Your task to perform on an android device: Is it going to rain this weekend? Image 0: 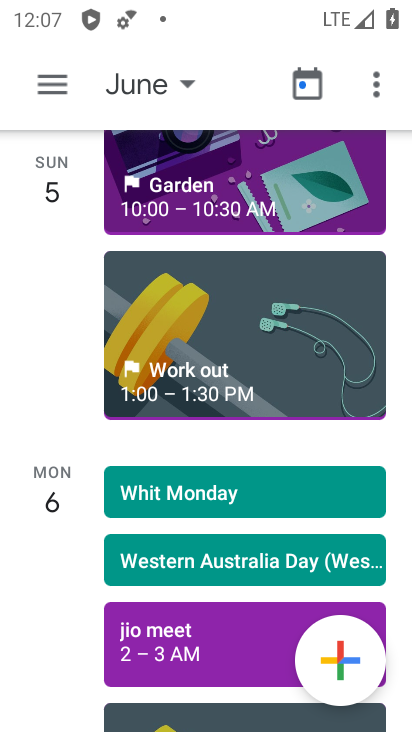
Step 0: press home button
Your task to perform on an android device: Is it going to rain this weekend? Image 1: 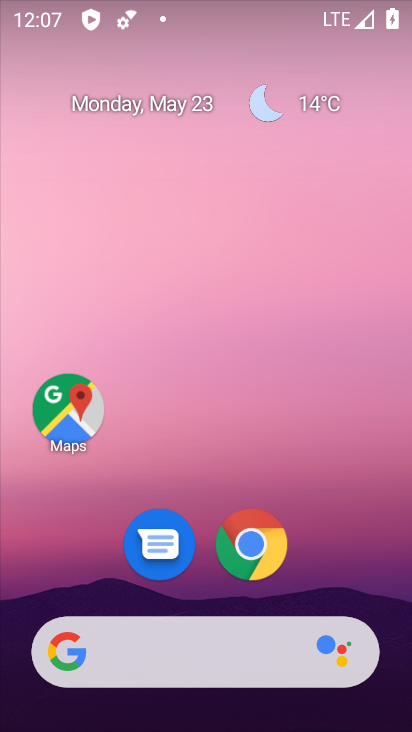
Step 1: drag from (311, 572) to (247, 159)
Your task to perform on an android device: Is it going to rain this weekend? Image 2: 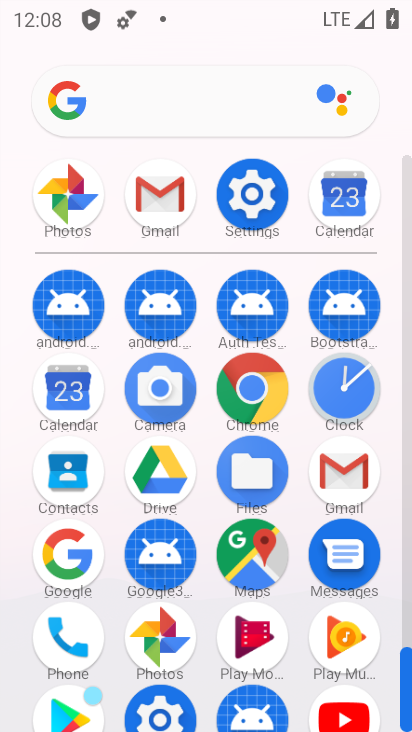
Step 2: click (59, 389)
Your task to perform on an android device: Is it going to rain this weekend? Image 3: 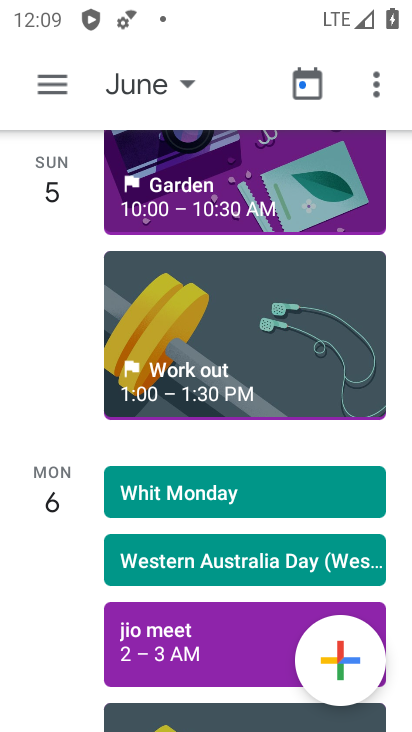
Step 3: click (133, 82)
Your task to perform on an android device: Is it going to rain this weekend? Image 4: 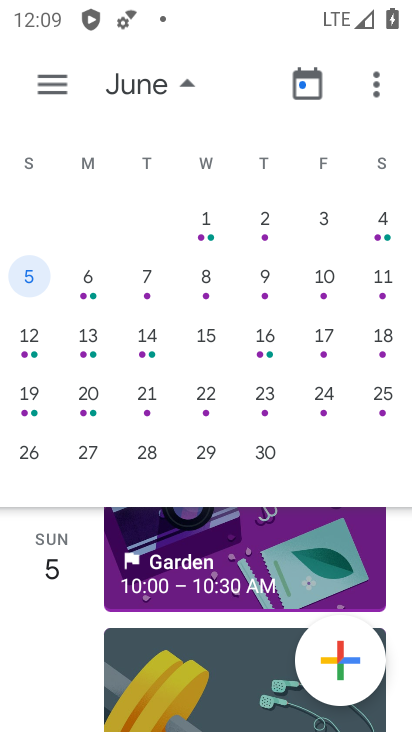
Step 4: click (57, 99)
Your task to perform on an android device: Is it going to rain this weekend? Image 5: 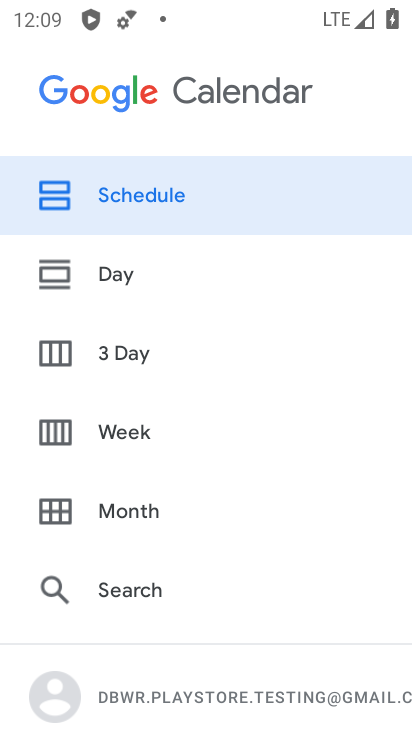
Step 5: click (130, 432)
Your task to perform on an android device: Is it going to rain this weekend? Image 6: 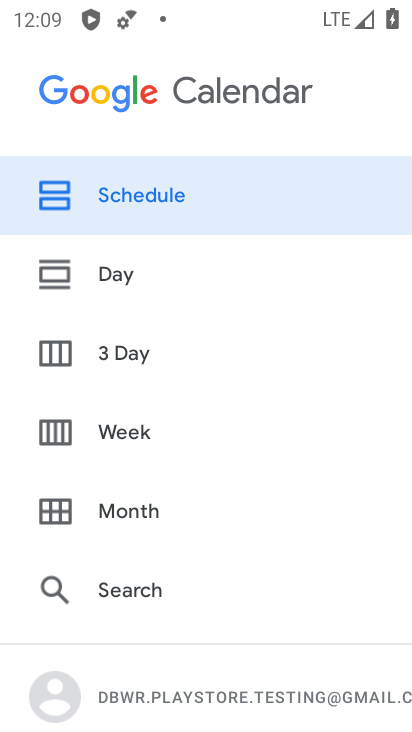
Step 6: press home button
Your task to perform on an android device: Is it going to rain this weekend? Image 7: 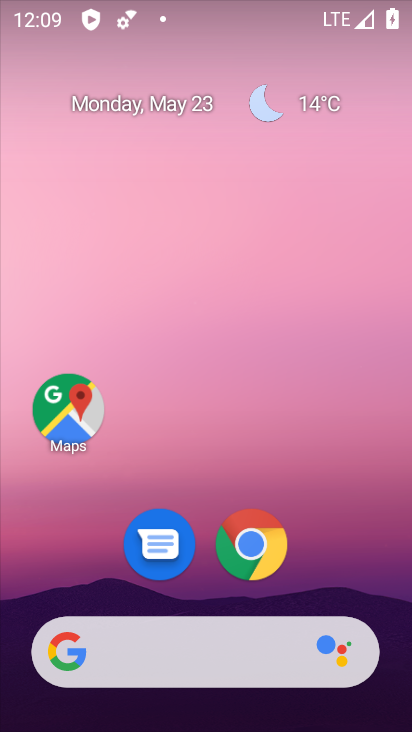
Step 7: drag from (310, 603) to (281, 167)
Your task to perform on an android device: Is it going to rain this weekend? Image 8: 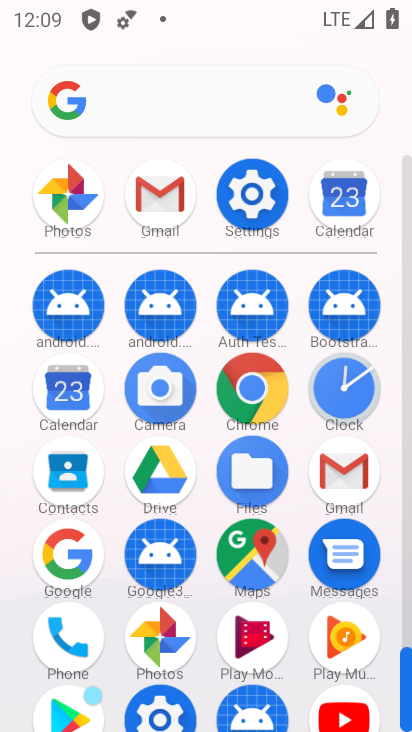
Step 8: click (46, 554)
Your task to perform on an android device: Is it going to rain this weekend? Image 9: 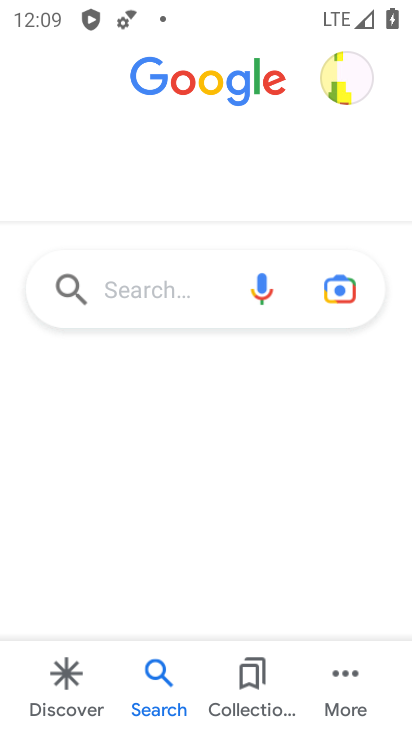
Step 9: click (170, 281)
Your task to perform on an android device: Is it going to rain this weekend? Image 10: 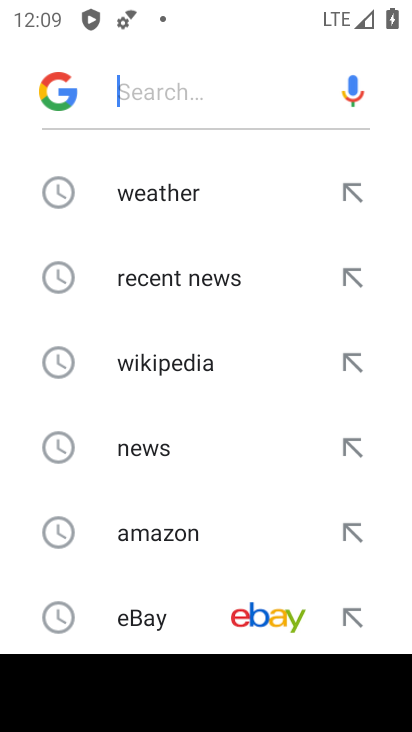
Step 10: click (159, 208)
Your task to perform on an android device: Is it going to rain this weekend? Image 11: 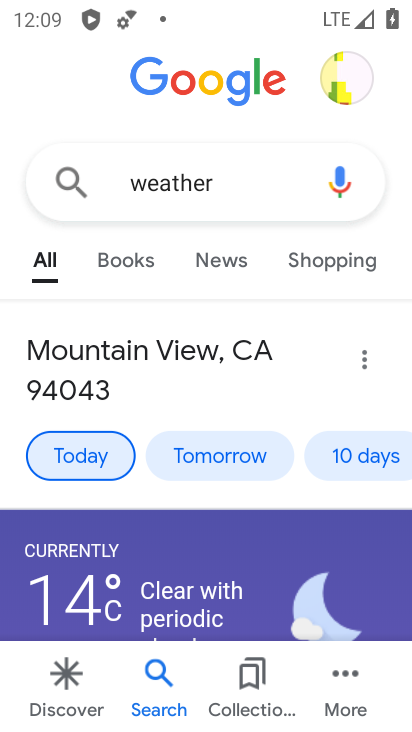
Step 11: task complete